Your task to perform on an android device: Search for Mexican restaurants on Maps Image 0: 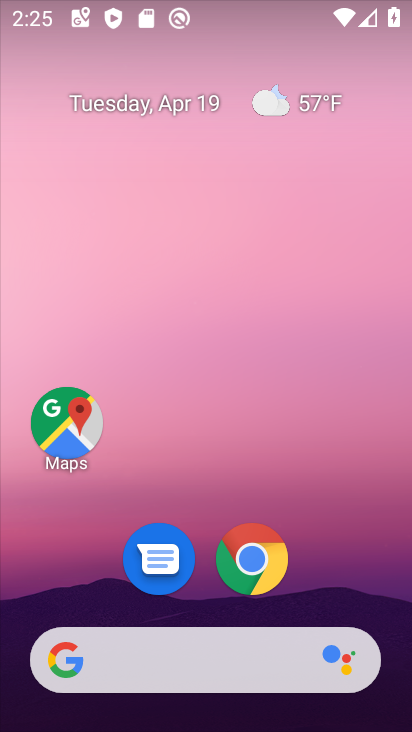
Step 0: click (67, 416)
Your task to perform on an android device: Search for Mexican restaurants on Maps Image 1: 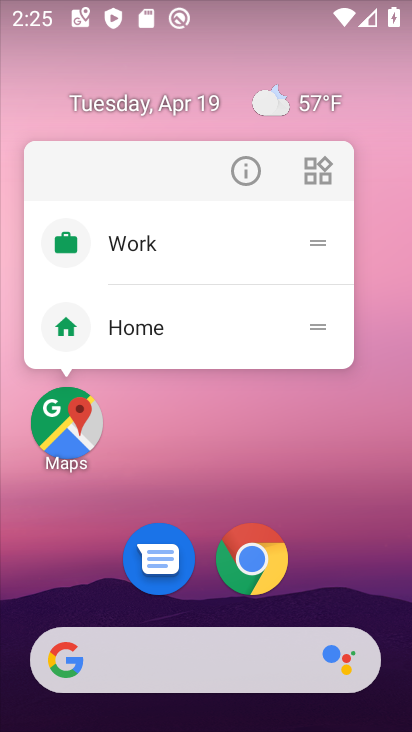
Step 1: click (67, 416)
Your task to perform on an android device: Search for Mexican restaurants on Maps Image 2: 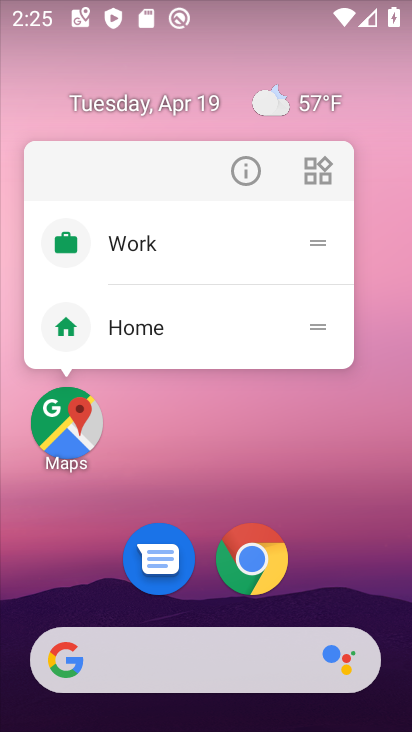
Step 2: click (240, 394)
Your task to perform on an android device: Search for Mexican restaurants on Maps Image 3: 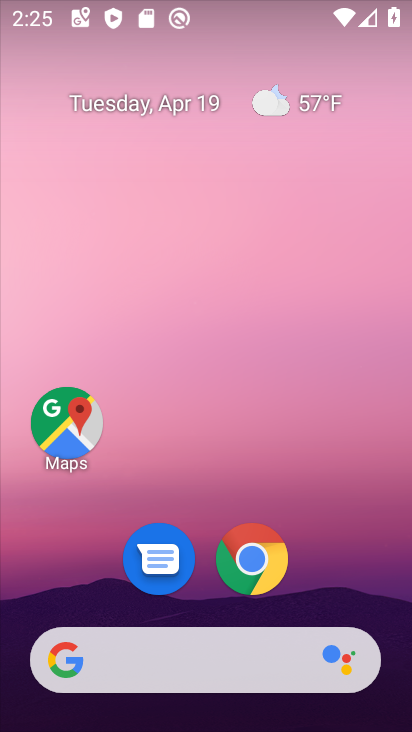
Step 3: click (218, 471)
Your task to perform on an android device: Search for Mexican restaurants on Maps Image 4: 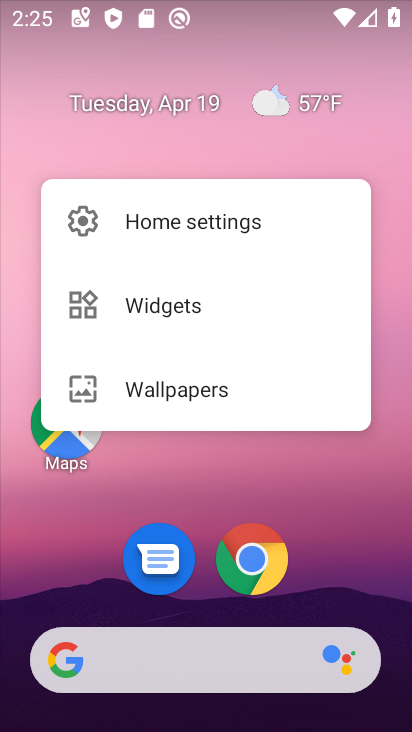
Step 4: click (213, 471)
Your task to perform on an android device: Search for Mexican restaurants on Maps Image 5: 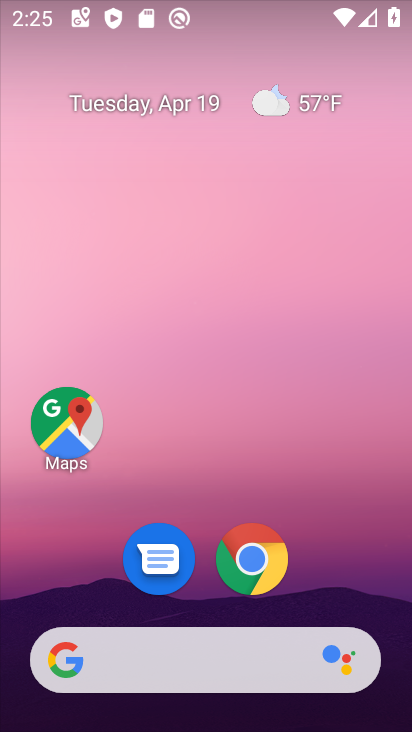
Step 5: click (69, 416)
Your task to perform on an android device: Search for Mexican restaurants on Maps Image 6: 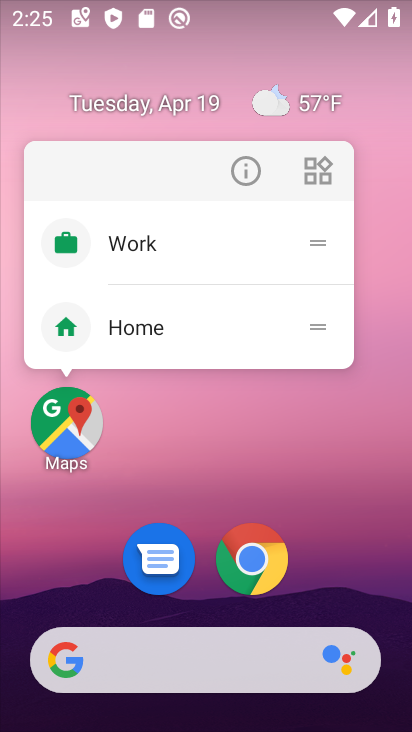
Step 6: click (197, 448)
Your task to perform on an android device: Search for Mexican restaurants on Maps Image 7: 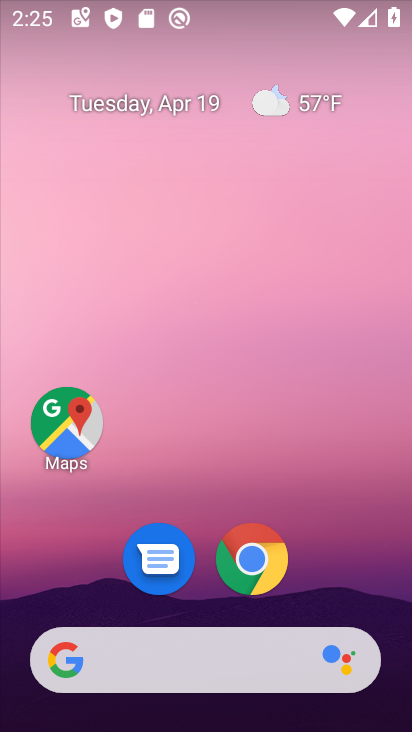
Step 7: drag from (205, 565) to (207, 166)
Your task to perform on an android device: Search for Mexican restaurants on Maps Image 8: 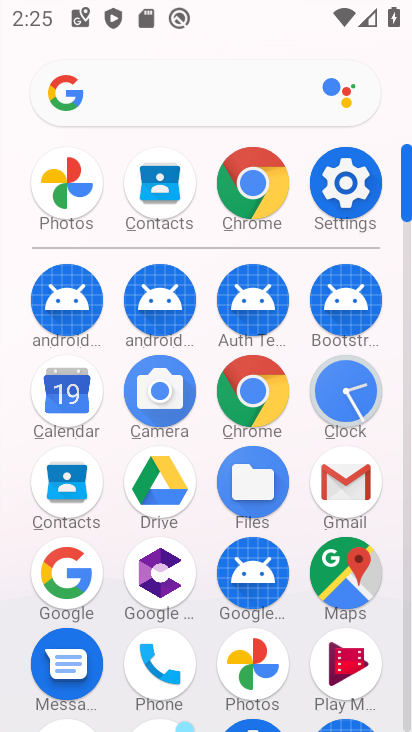
Step 8: click (343, 570)
Your task to perform on an android device: Search for Mexican restaurants on Maps Image 9: 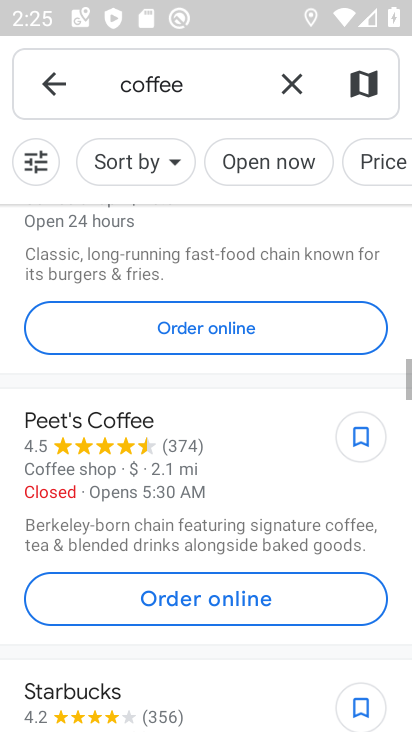
Step 9: click (293, 78)
Your task to perform on an android device: Search for Mexican restaurants on Maps Image 10: 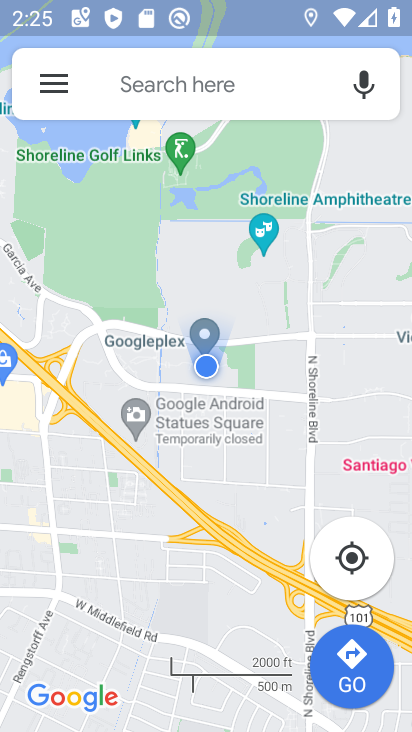
Step 10: click (169, 86)
Your task to perform on an android device: Search for Mexican restaurants on Maps Image 11: 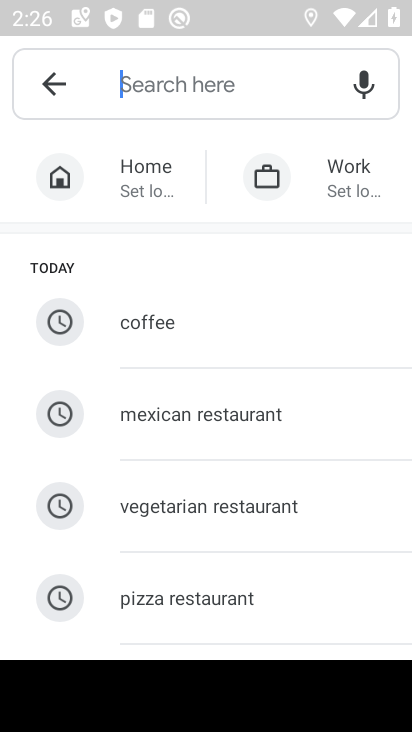
Step 11: drag from (219, 564) to (234, 201)
Your task to perform on an android device: Search for Mexican restaurants on Maps Image 12: 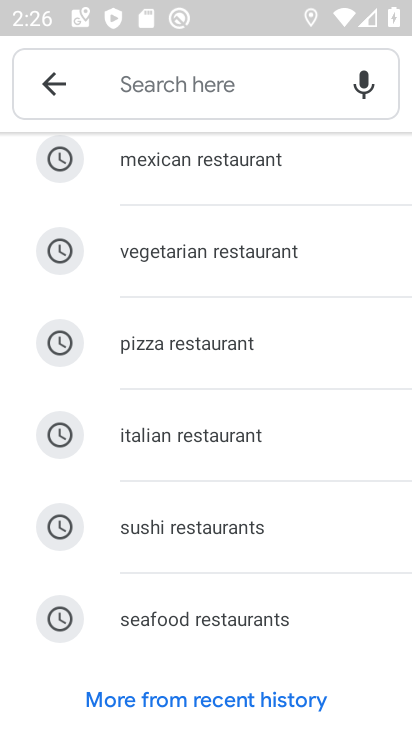
Step 12: drag from (230, 652) to (291, 168)
Your task to perform on an android device: Search for Mexican restaurants on Maps Image 13: 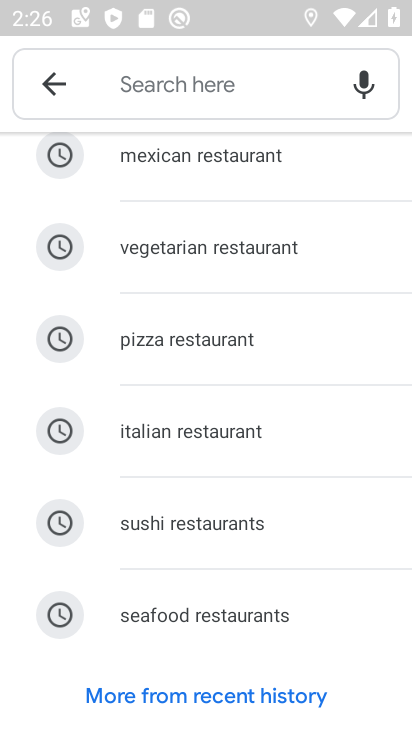
Step 13: drag from (199, 288) to (213, 698)
Your task to perform on an android device: Search for Mexican restaurants on Maps Image 14: 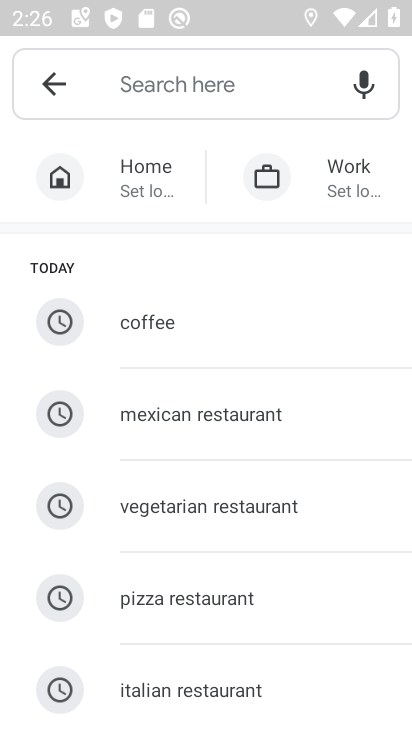
Step 14: click (211, 430)
Your task to perform on an android device: Search for Mexican restaurants on Maps Image 15: 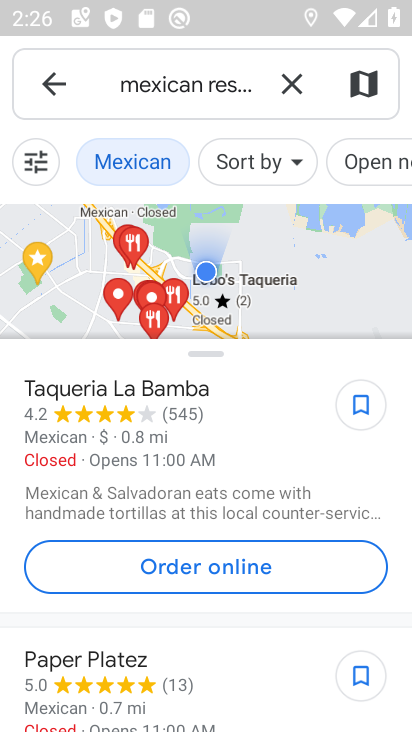
Step 15: task complete